Your task to perform on an android device: What's the weather today? Image 0: 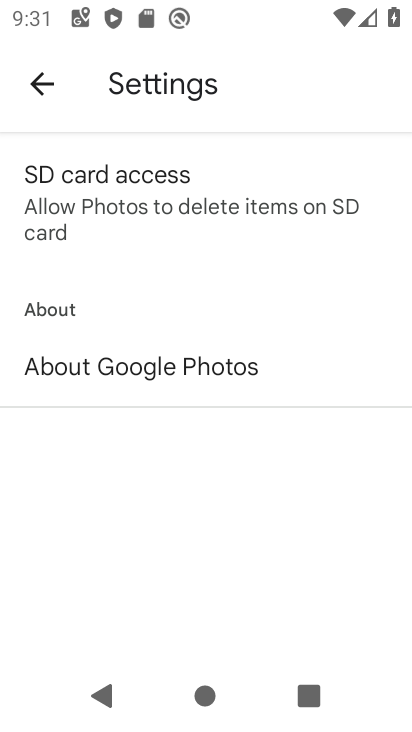
Step 0: press home button
Your task to perform on an android device: What's the weather today? Image 1: 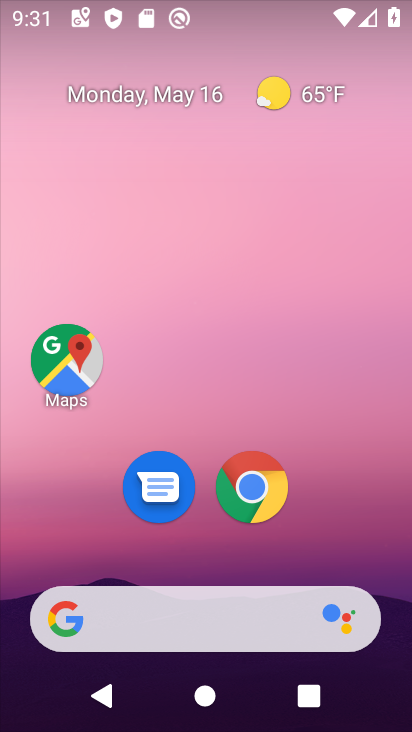
Step 1: drag from (331, 518) to (325, 182)
Your task to perform on an android device: What's the weather today? Image 2: 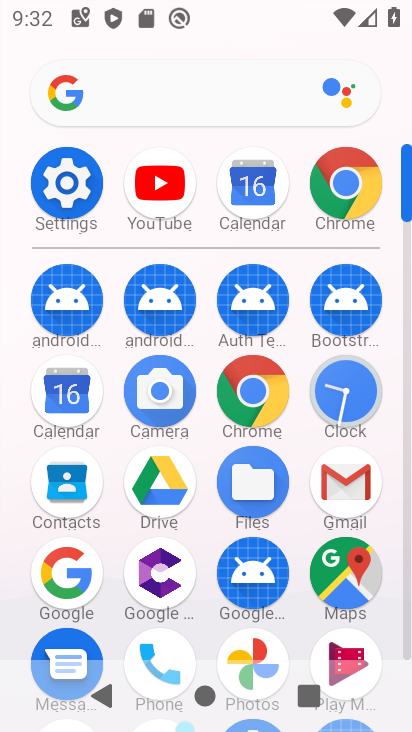
Step 2: click (77, 576)
Your task to perform on an android device: What's the weather today? Image 3: 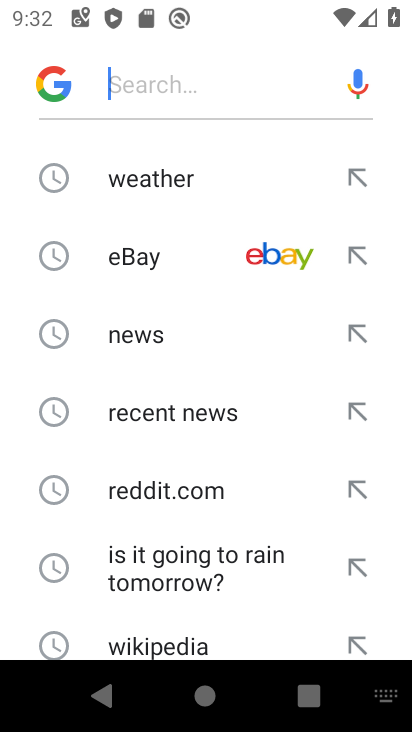
Step 3: click (180, 175)
Your task to perform on an android device: What's the weather today? Image 4: 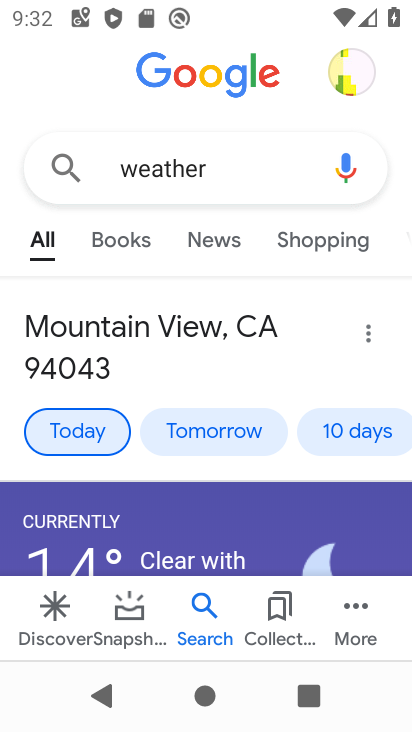
Step 4: task complete